Your task to perform on an android device: Turn off the flashlight Image 0: 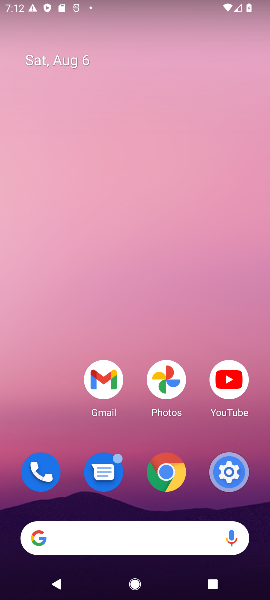
Step 0: click (229, 470)
Your task to perform on an android device: Turn off the flashlight Image 1: 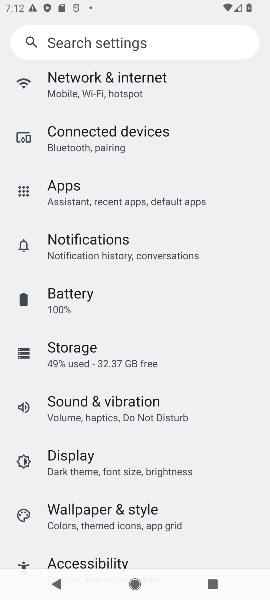
Step 1: task complete